Your task to perform on an android device: turn off improve location accuracy Image 0: 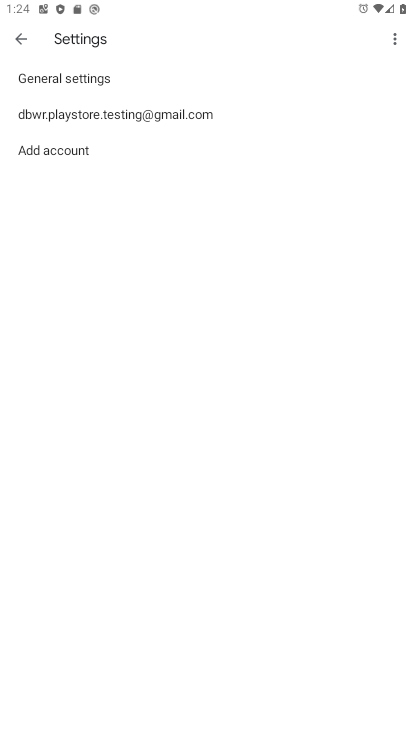
Step 0: click (27, 27)
Your task to perform on an android device: turn off improve location accuracy Image 1: 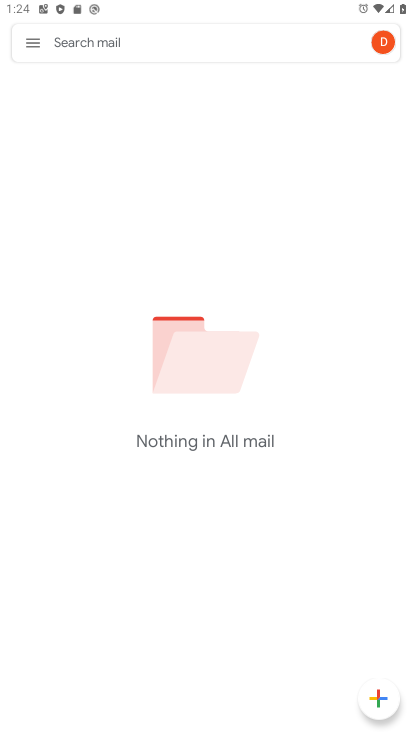
Step 1: press back button
Your task to perform on an android device: turn off improve location accuracy Image 2: 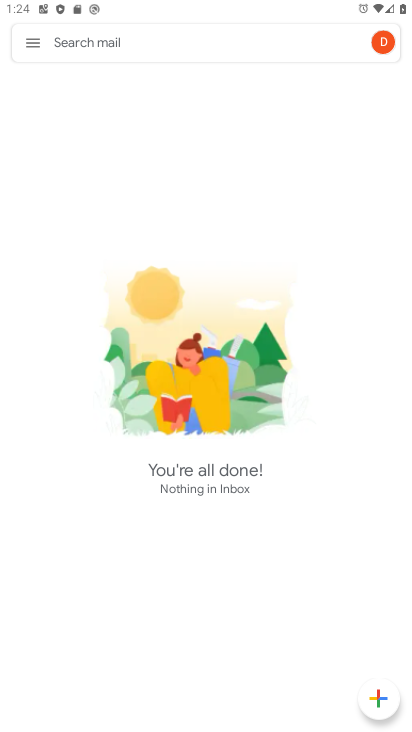
Step 2: drag from (240, 603) to (203, 113)
Your task to perform on an android device: turn off improve location accuracy Image 3: 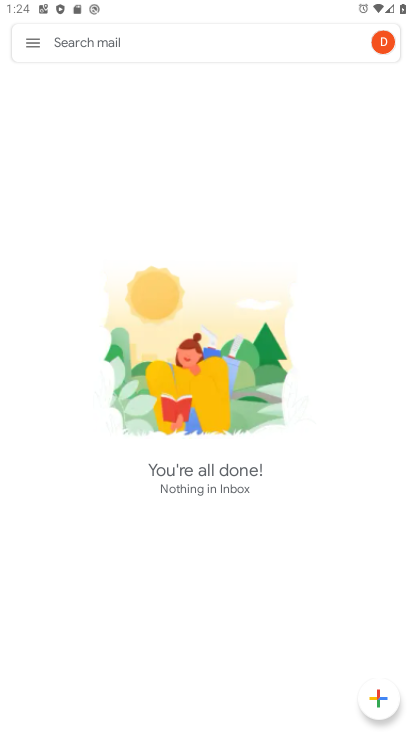
Step 3: click (37, 44)
Your task to perform on an android device: turn off improve location accuracy Image 4: 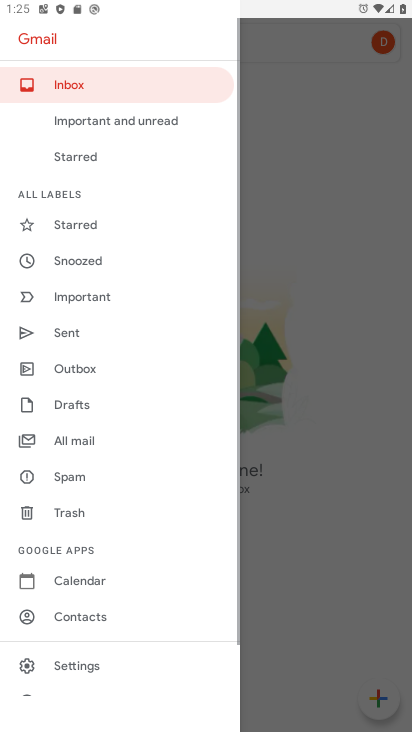
Step 4: press home button
Your task to perform on an android device: turn off improve location accuracy Image 5: 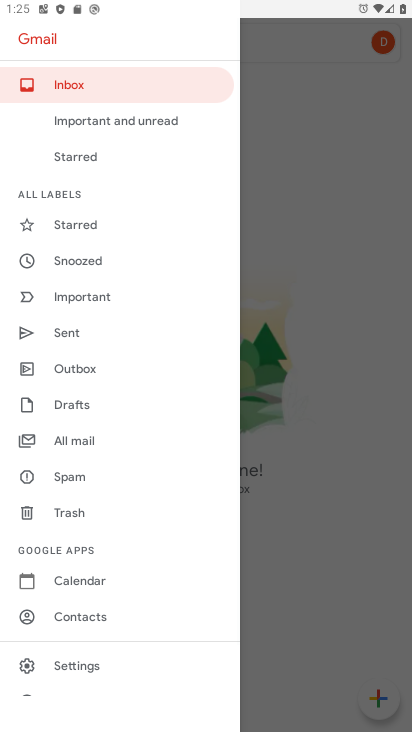
Step 5: press home button
Your task to perform on an android device: turn off improve location accuracy Image 6: 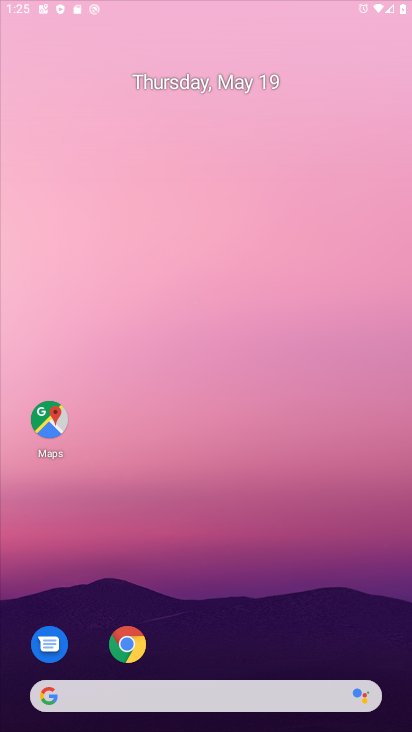
Step 6: press home button
Your task to perform on an android device: turn off improve location accuracy Image 7: 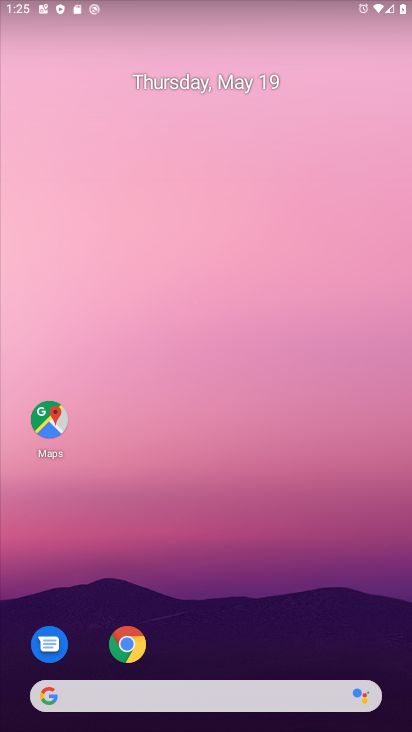
Step 7: drag from (268, 596) to (217, 21)
Your task to perform on an android device: turn off improve location accuracy Image 8: 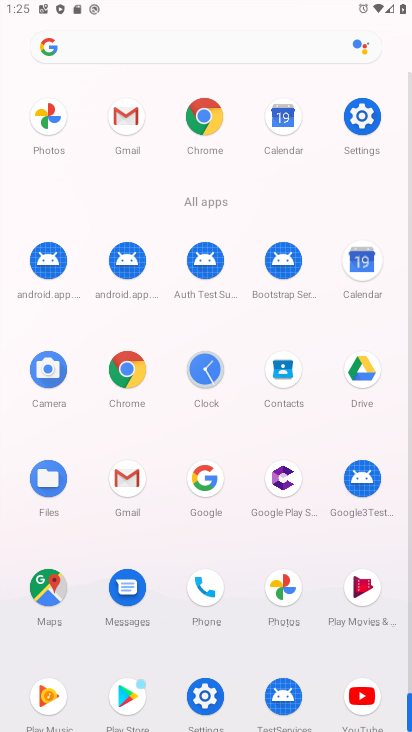
Step 8: click (355, 118)
Your task to perform on an android device: turn off improve location accuracy Image 9: 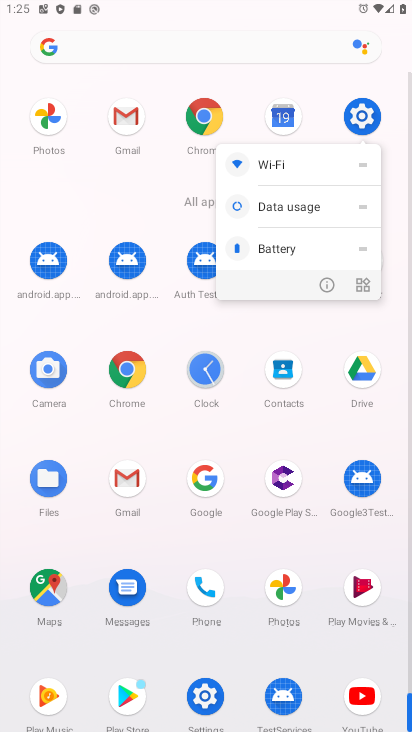
Step 9: click (358, 119)
Your task to perform on an android device: turn off improve location accuracy Image 10: 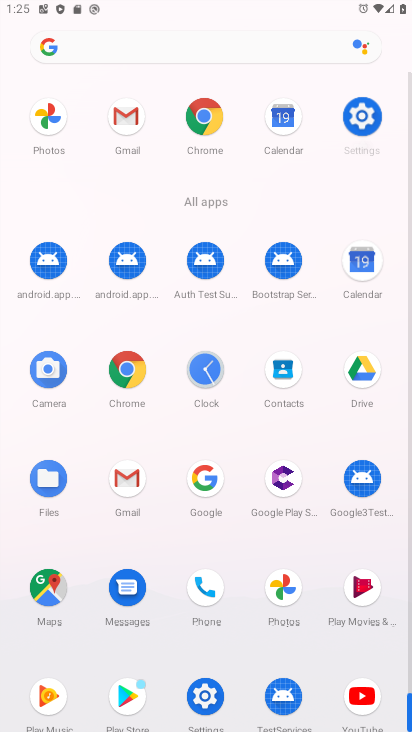
Step 10: click (358, 119)
Your task to perform on an android device: turn off improve location accuracy Image 11: 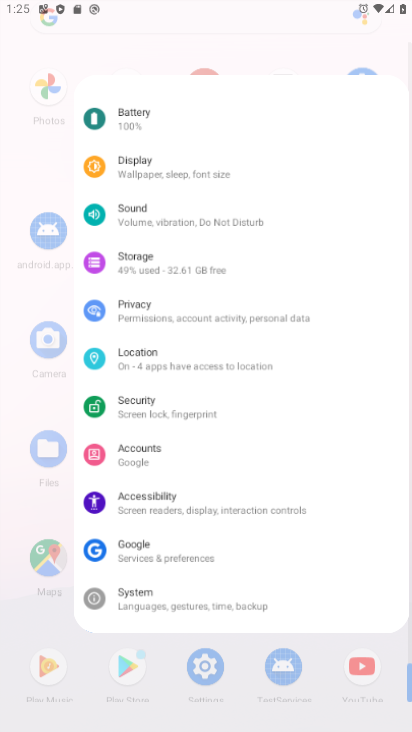
Step 11: click (358, 119)
Your task to perform on an android device: turn off improve location accuracy Image 12: 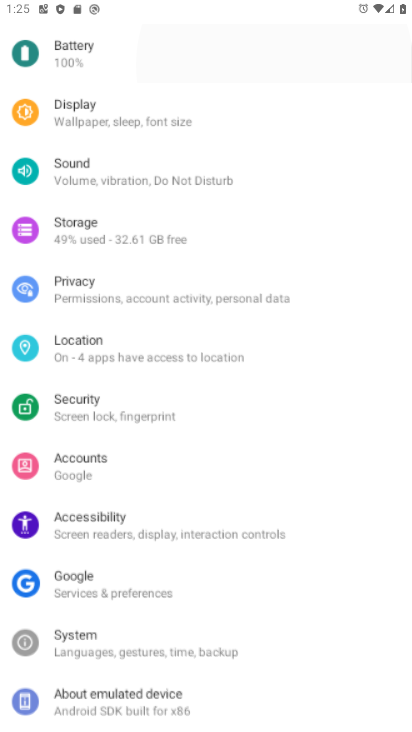
Step 12: click (358, 119)
Your task to perform on an android device: turn off improve location accuracy Image 13: 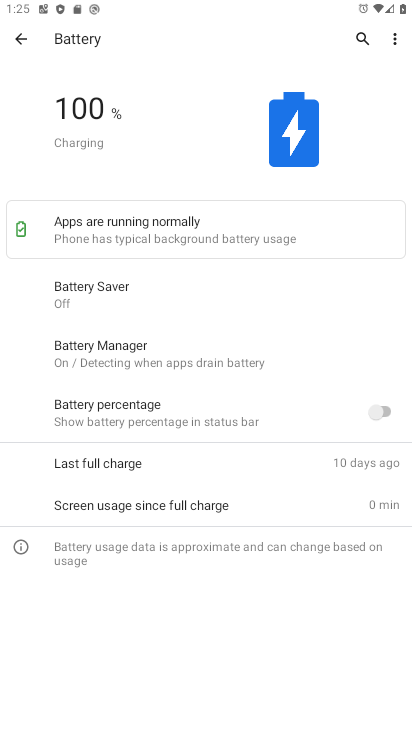
Step 13: click (18, 27)
Your task to perform on an android device: turn off improve location accuracy Image 14: 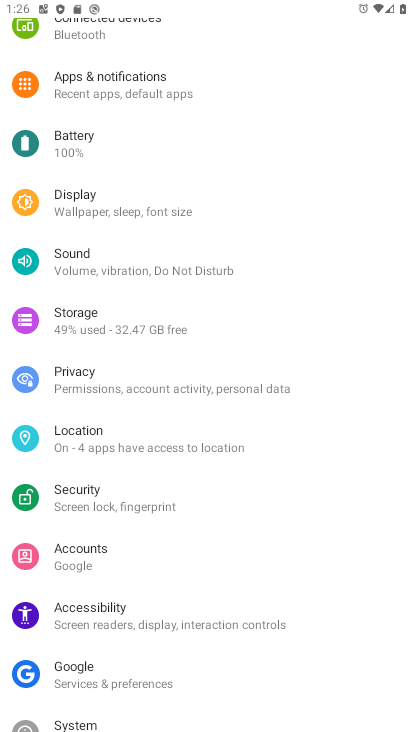
Step 14: drag from (136, 430) to (74, 122)
Your task to perform on an android device: turn off improve location accuracy Image 15: 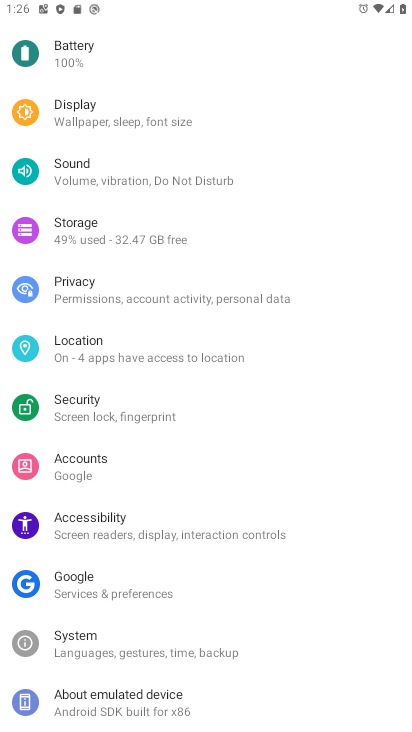
Step 15: drag from (116, 270) to (179, 646)
Your task to perform on an android device: turn off improve location accuracy Image 16: 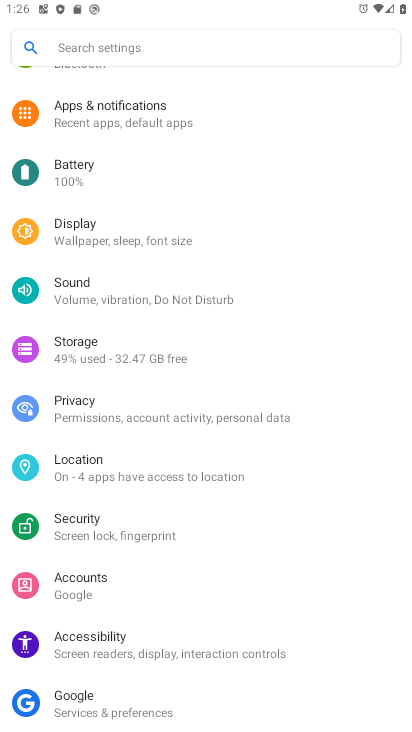
Step 16: drag from (123, 192) to (219, 542)
Your task to perform on an android device: turn off improve location accuracy Image 17: 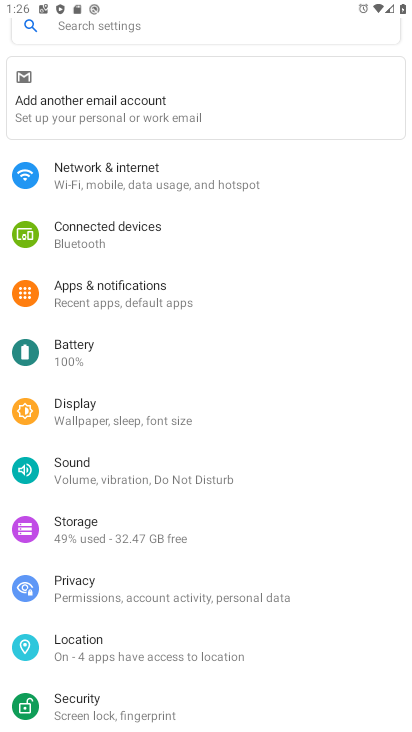
Step 17: drag from (167, 533) to (120, 254)
Your task to perform on an android device: turn off improve location accuracy Image 18: 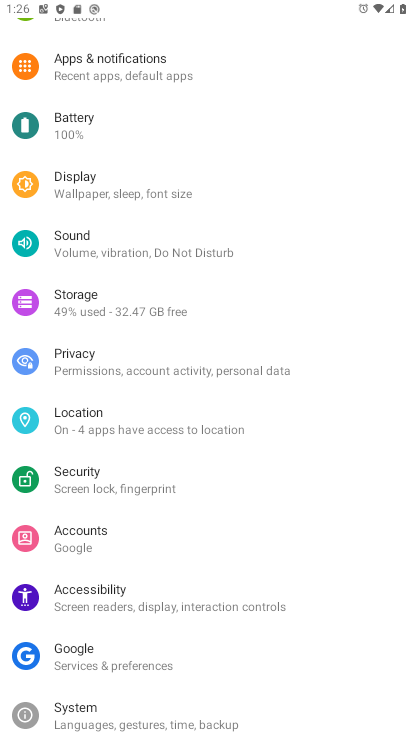
Step 18: drag from (132, 517) to (122, 120)
Your task to perform on an android device: turn off improve location accuracy Image 19: 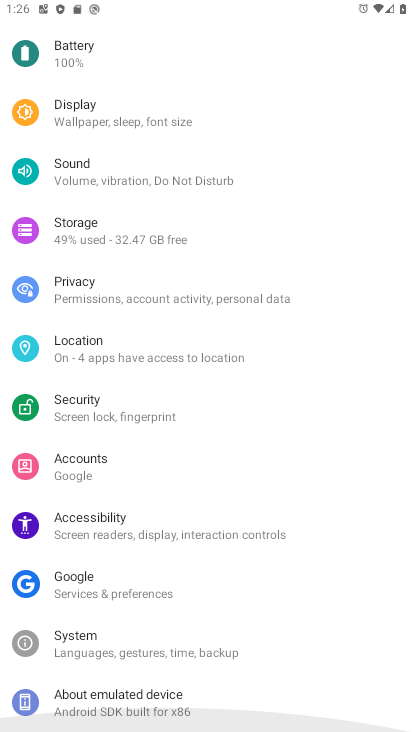
Step 19: drag from (106, 458) to (60, 106)
Your task to perform on an android device: turn off improve location accuracy Image 20: 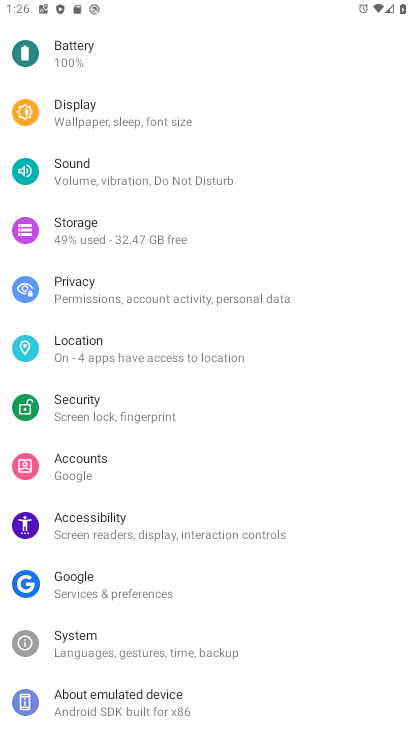
Step 20: click (81, 354)
Your task to perform on an android device: turn off improve location accuracy Image 21: 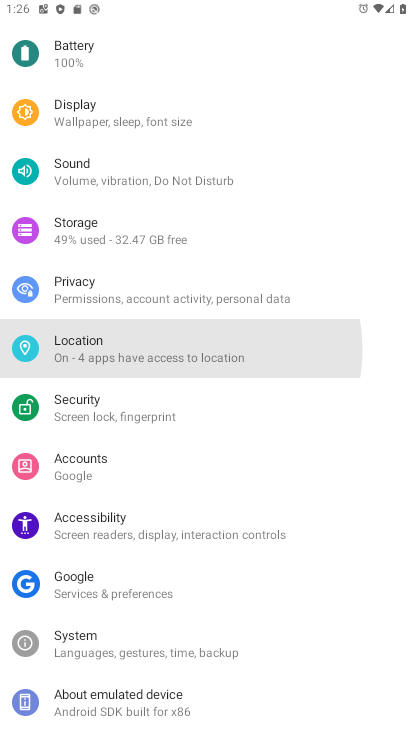
Step 21: click (81, 354)
Your task to perform on an android device: turn off improve location accuracy Image 22: 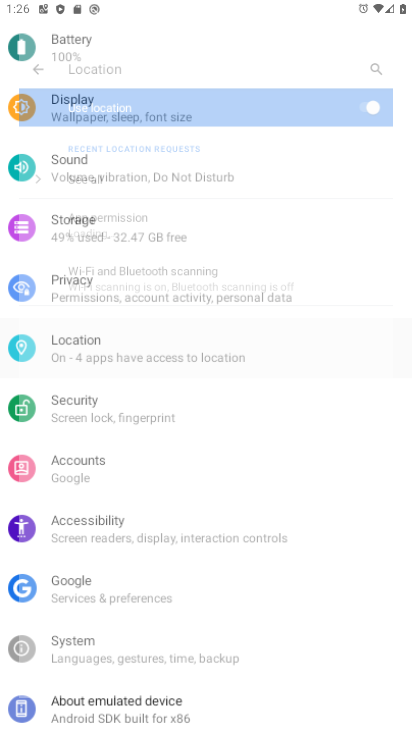
Step 22: click (81, 354)
Your task to perform on an android device: turn off improve location accuracy Image 23: 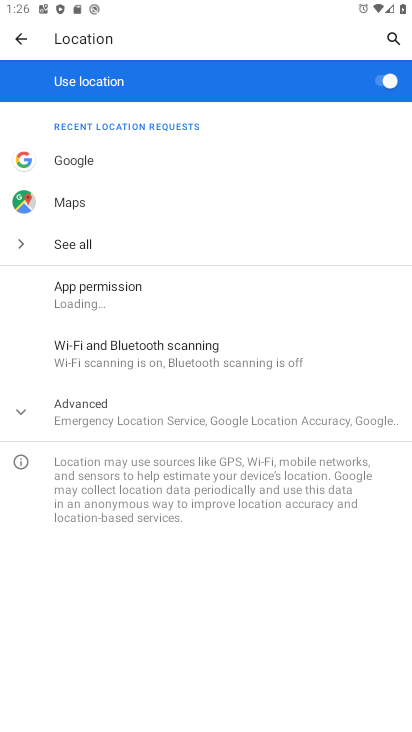
Step 23: click (81, 354)
Your task to perform on an android device: turn off improve location accuracy Image 24: 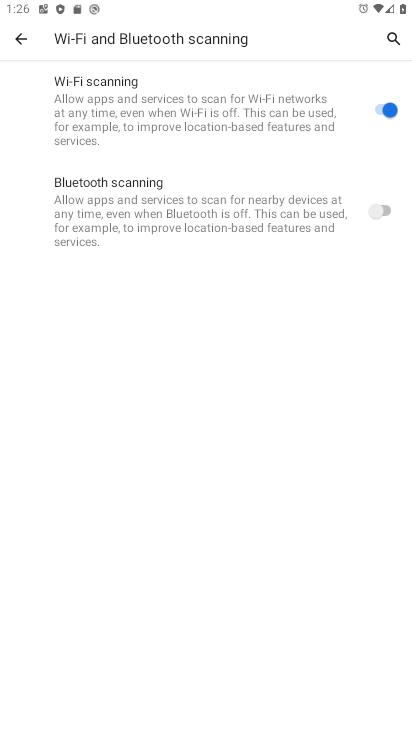
Step 24: click (376, 208)
Your task to perform on an android device: turn off improve location accuracy Image 25: 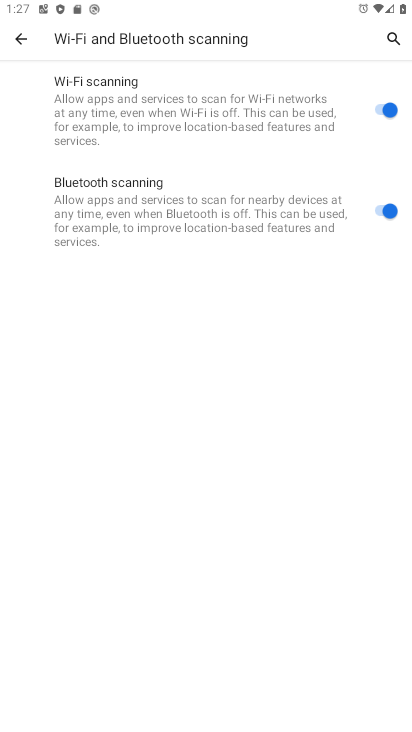
Step 25: click (21, 40)
Your task to perform on an android device: turn off improve location accuracy Image 26: 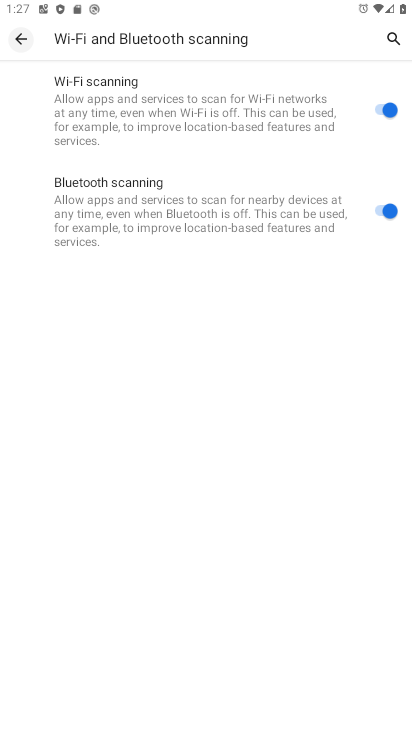
Step 26: click (21, 40)
Your task to perform on an android device: turn off improve location accuracy Image 27: 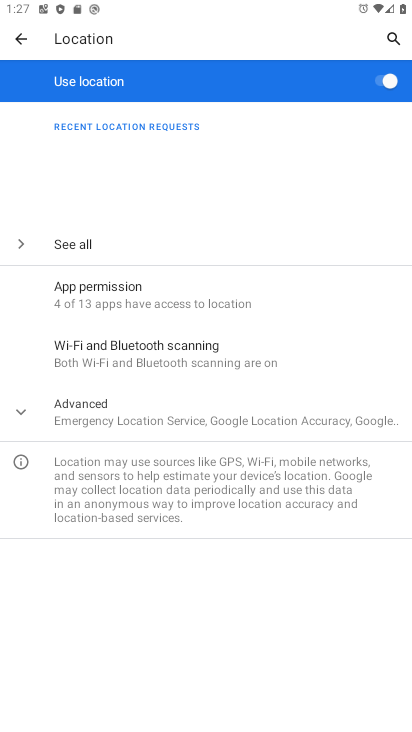
Step 27: click (22, 43)
Your task to perform on an android device: turn off improve location accuracy Image 28: 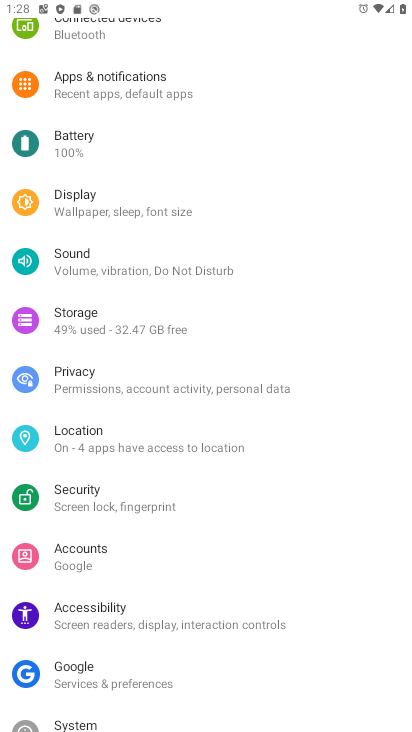
Step 28: click (100, 446)
Your task to perform on an android device: turn off improve location accuracy Image 29: 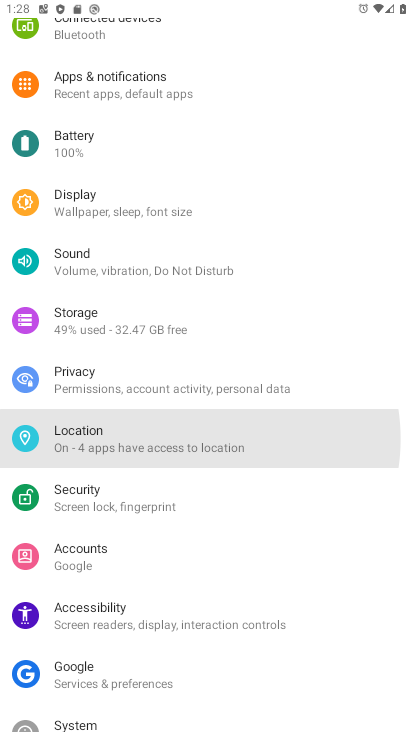
Step 29: click (100, 446)
Your task to perform on an android device: turn off improve location accuracy Image 30: 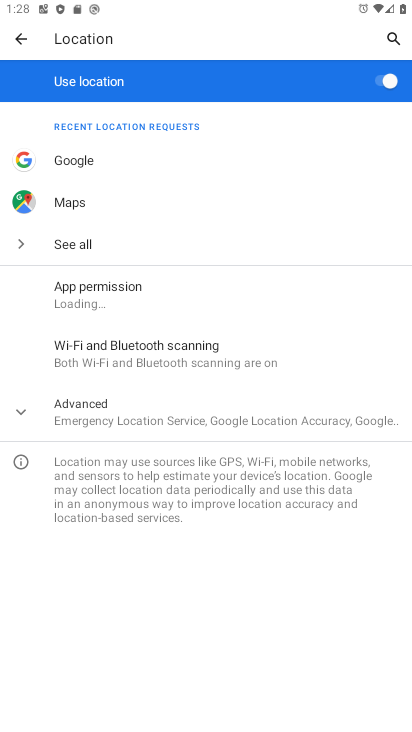
Step 30: click (99, 447)
Your task to perform on an android device: turn off improve location accuracy Image 31: 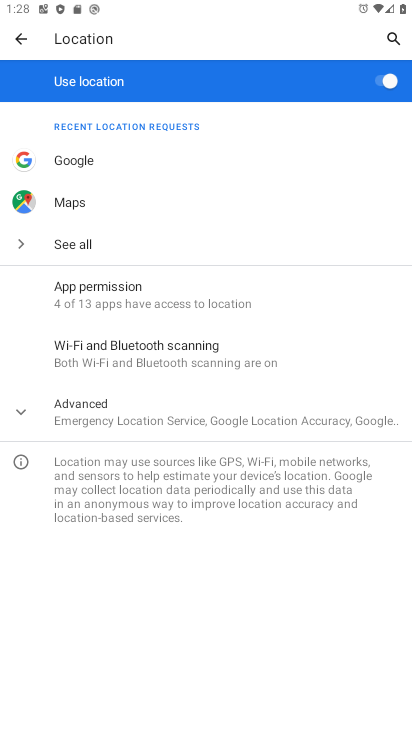
Step 31: click (96, 412)
Your task to perform on an android device: turn off improve location accuracy Image 32: 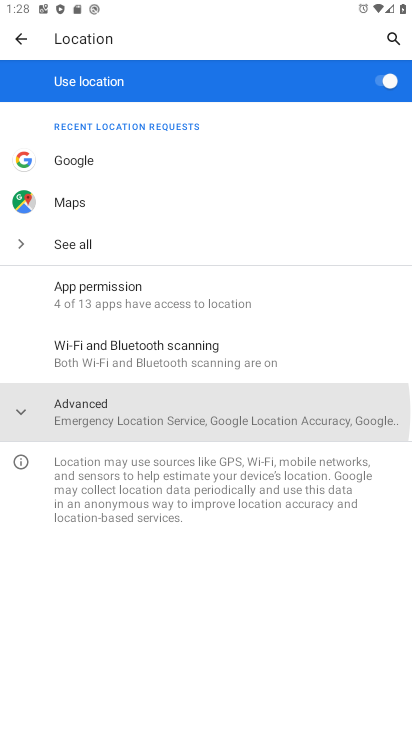
Step 32: click (96, 412)
Your task to perform on an android device: turn off improve location accuracy Image 33: 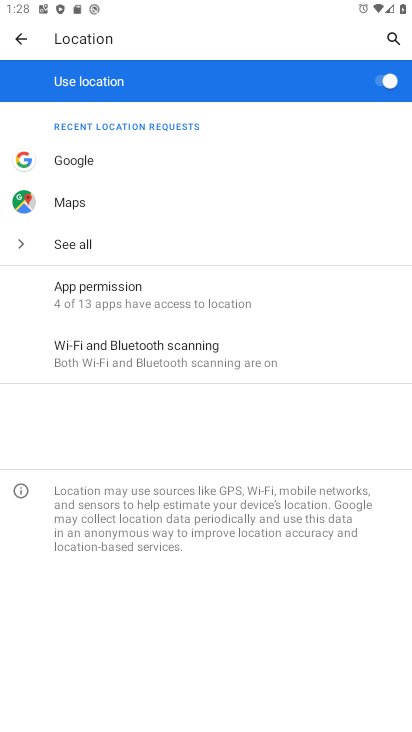
Step 33: click (97, 413)
Your task to perform on an android device: turn off improve location accuracy Image 34: 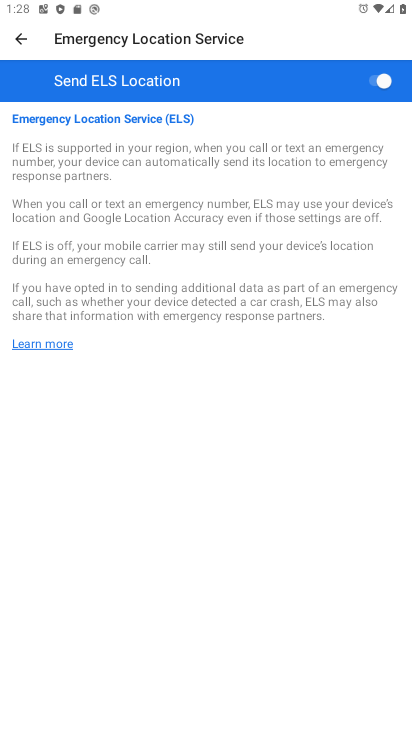
Step 34: click (18, 44)
Your task to perform on an android device: turn off improve location accuracy Image 35: 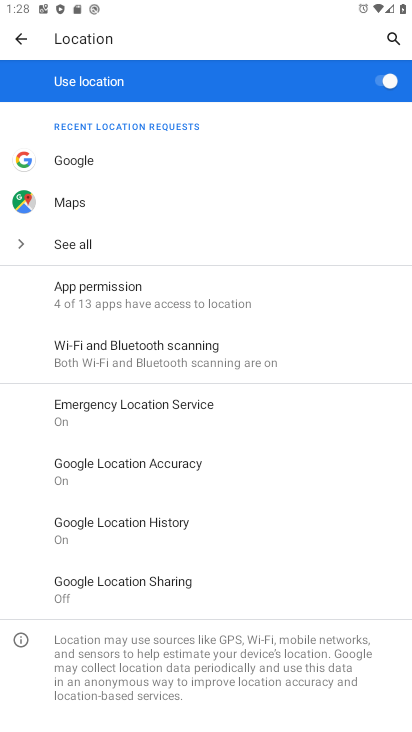
Step 35: click (65, 458)
Your task to perform on an android device: turn off improve location accuracy Image 36: 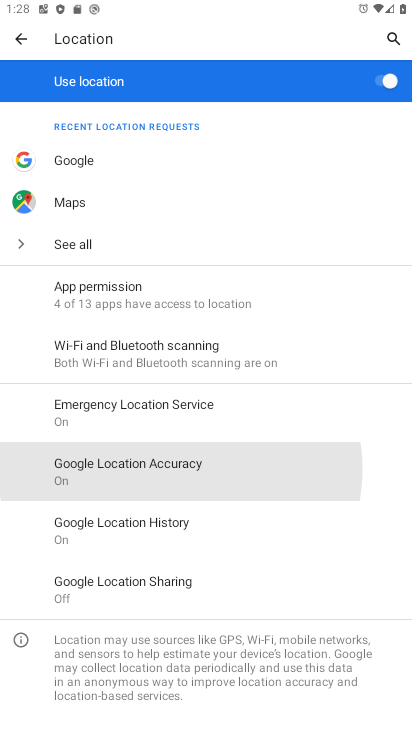
Step 36: click (65, 458)
Your task to perform on an android device: turn off improve location accuracy Image 37: 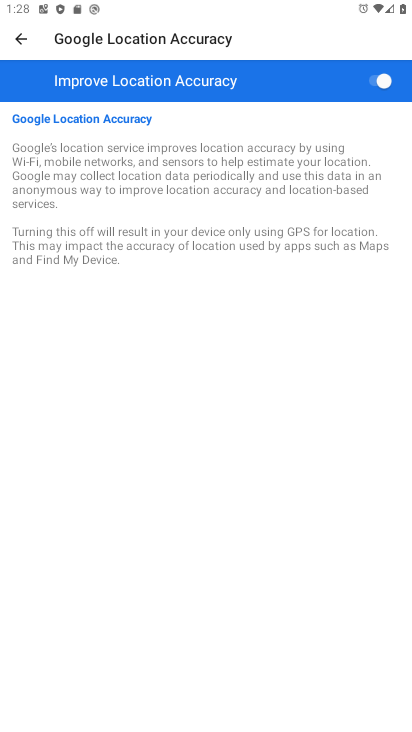
Step 37: click (386, 86)
Your task to perform on an android device: turn off improve location accuracy Image 38: 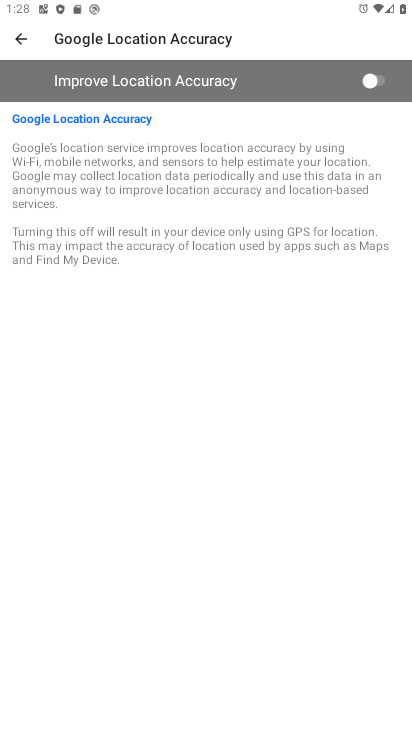
Step 38: task complete